Your task to perform on an android device: Open Chrome and go to settings Image 0: 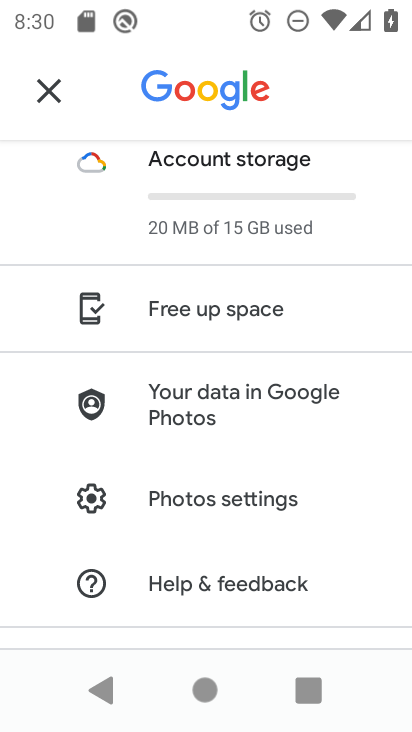
Step 0: press home button
Your task to perform on an android device: Open Chrome and go to settings Image 1: 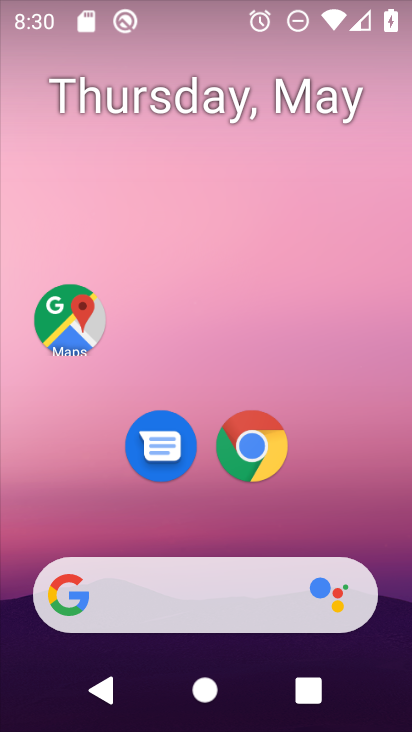
Step 1: drag from (376, 516) to (340, 109)
Your task to perform on an android device: Open Chrome and go to settings Image 2: 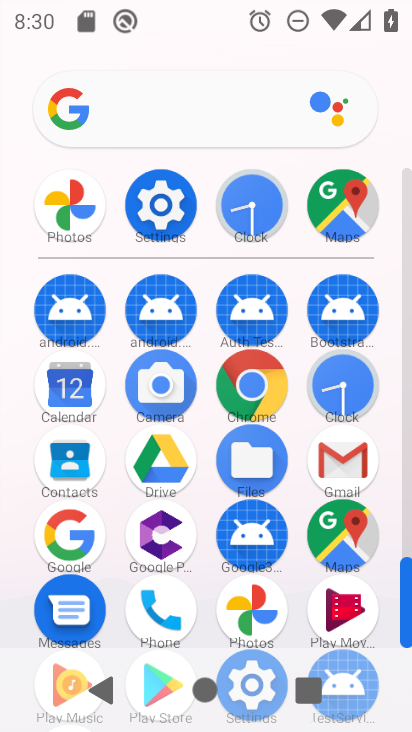
Step 2: drag from (296, 577) to (298, 268)
Your task to perform on an android device: Open Chrome and go to settings Image 3: 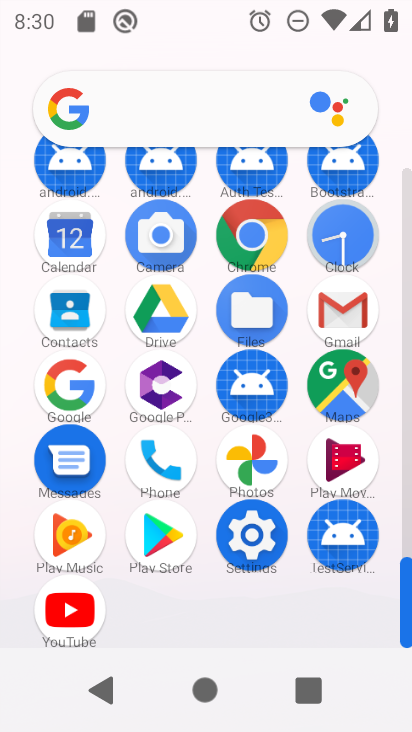
Step 3: click (257, 224)
Your task to perform on an android device: Open Chrome and go to settings Image 4: 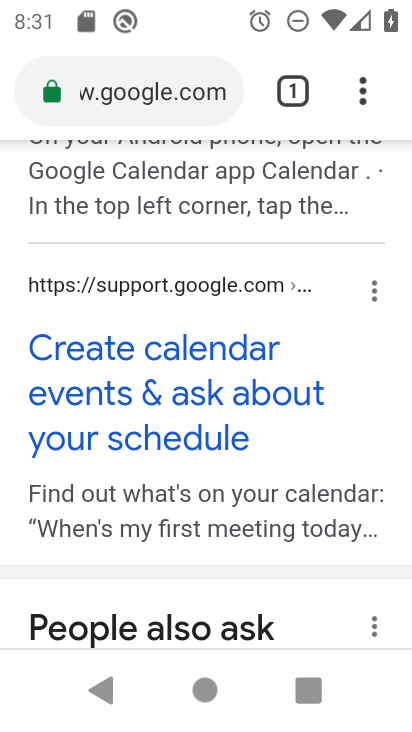
Step 4: task complete